Your task to perform on an android device: See recent photos Image 0: 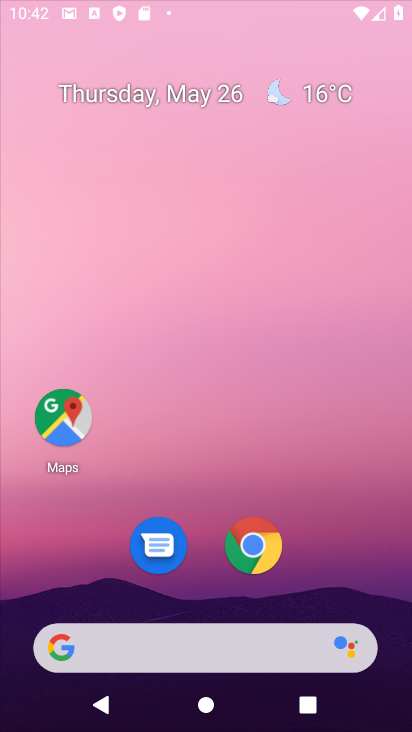
Step 0: press home button
Your task to perform on an android device: See recent photos Image 1: 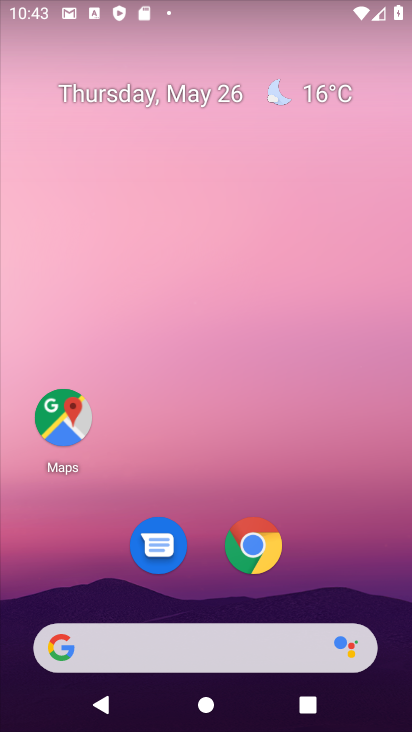
Step 1: drag from (281, 607) to (264, 148)
Your task to perform on an android device: See recent photos Image 2: 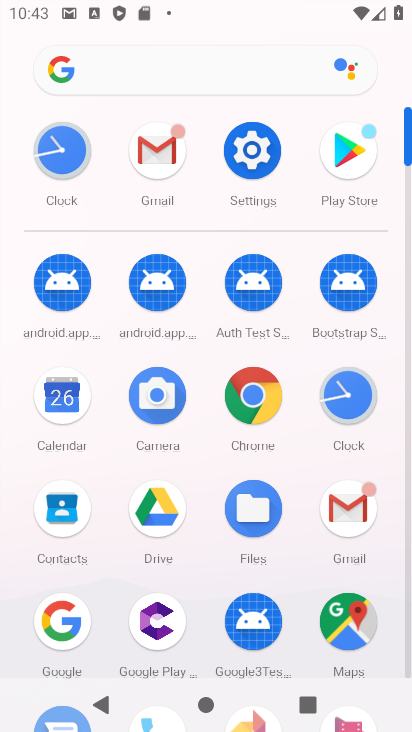
Step 2: drag from (290, 572) to (310, 133)
Your task to perform on an android device: See recent photos Image 3: 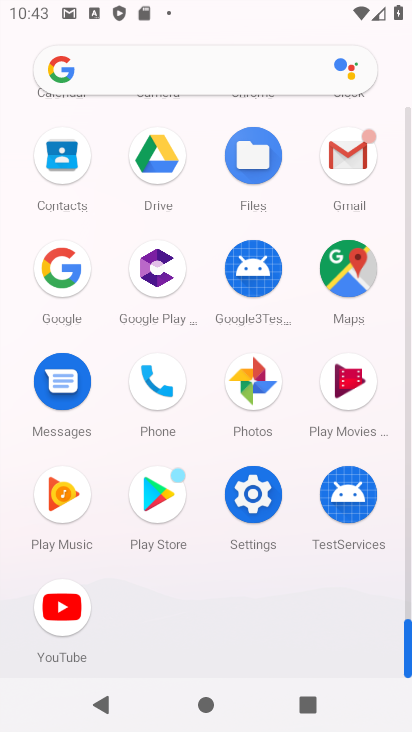
Step 3: click (255, 382)
Your task to perform on an android device: See recent photos Image 4: 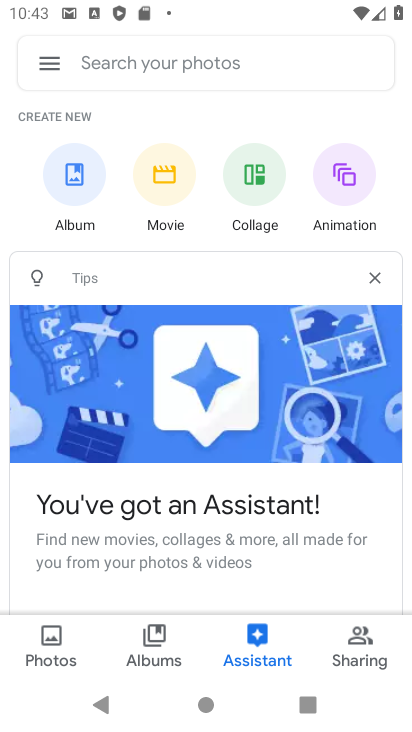
Step 4: click (51, 637)
Your task to perform on an android device: See recent photos Image 5: 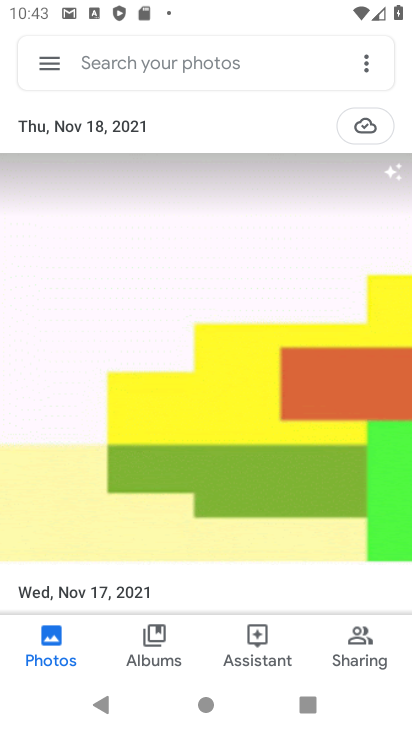
Step 5: task complete